Your task to perform on an android device: turn on notifications settings in the gmail app Image 0: 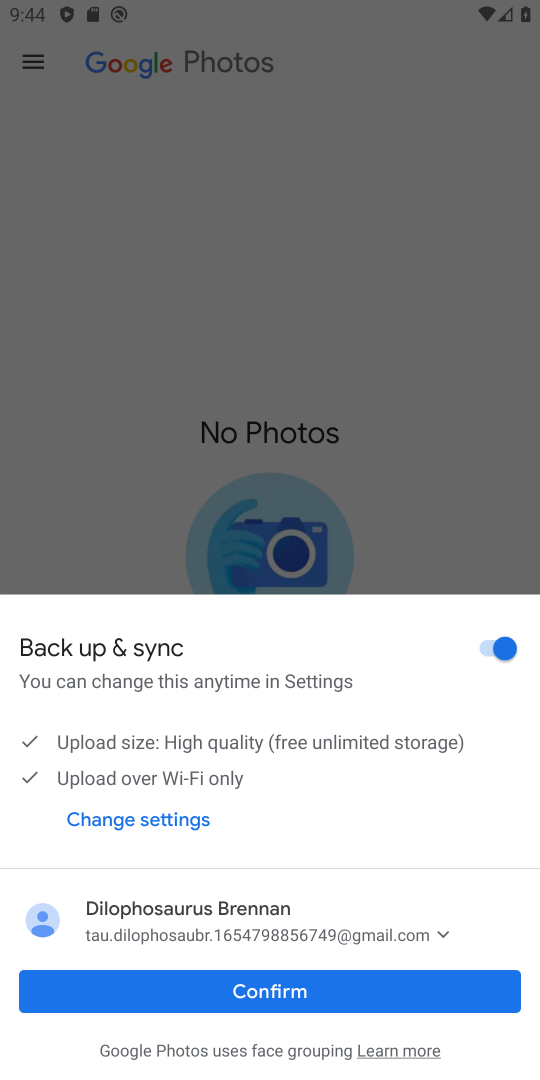
Step 0: press home button
Your task to perform on an android device: turn on notifications settings in the gmail app Image 1: 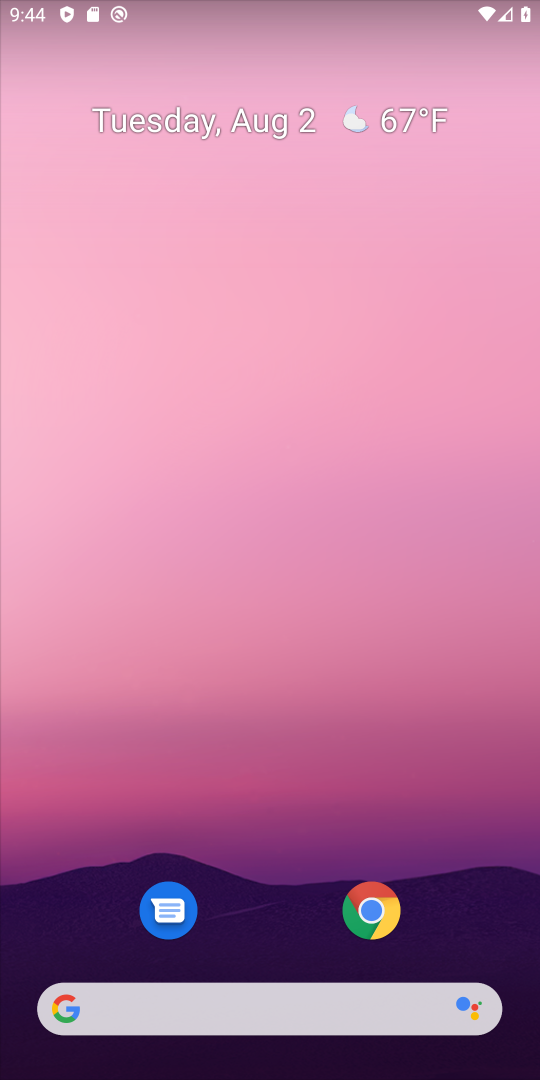
Step 1: drag from (335, 939) to (298, 342)
Your task to perform on an android device: turn on notifications settings in the gmail app Image 2: 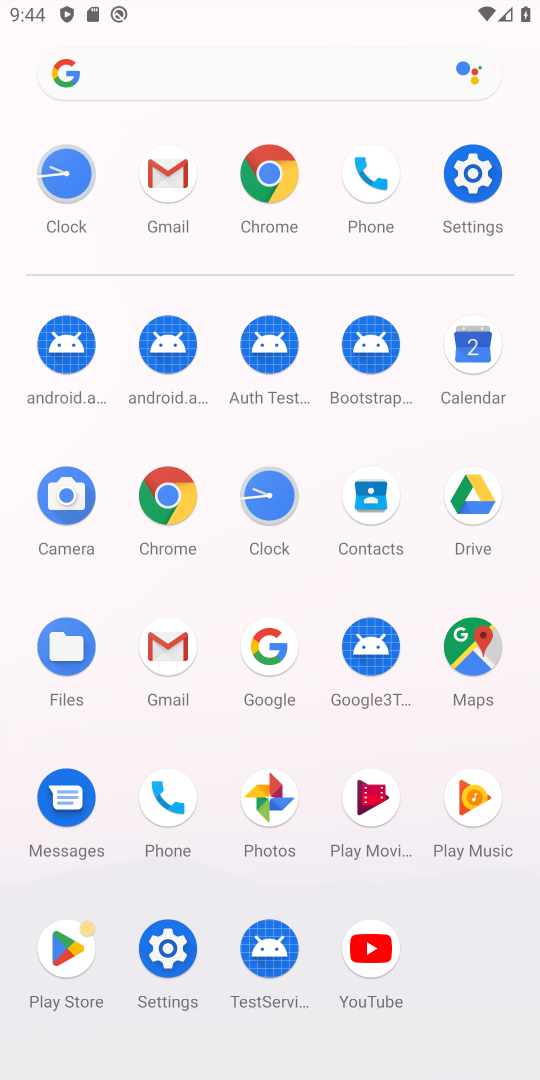
Step 2: click (188, 164)
Your task to perform on an android device: turn on notifications settings in the gmail app Image 3: 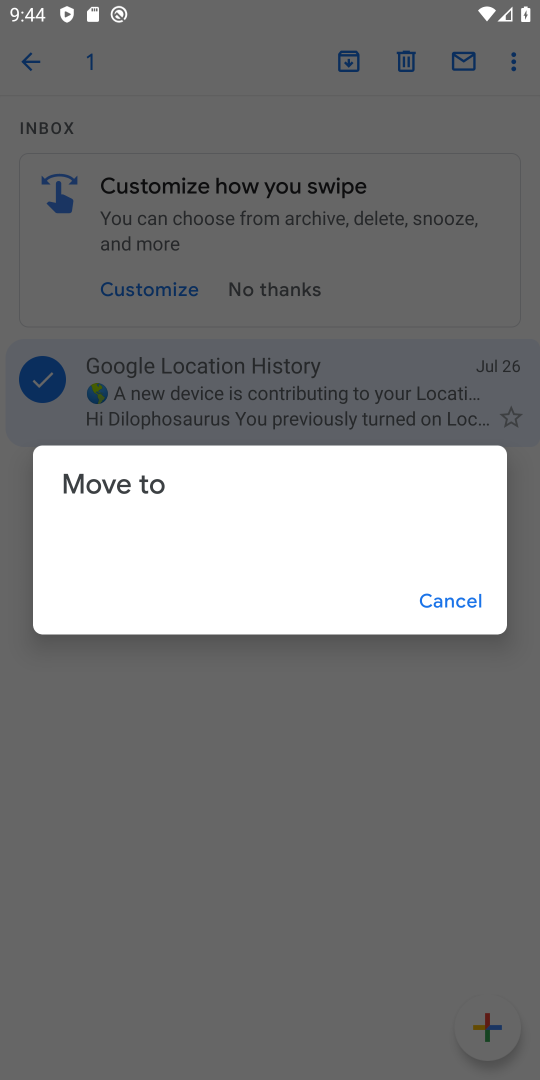
Step 3: click (456, 594)
Your task to perform on an android device: turn on notifications settings in the gmail app Image 4: 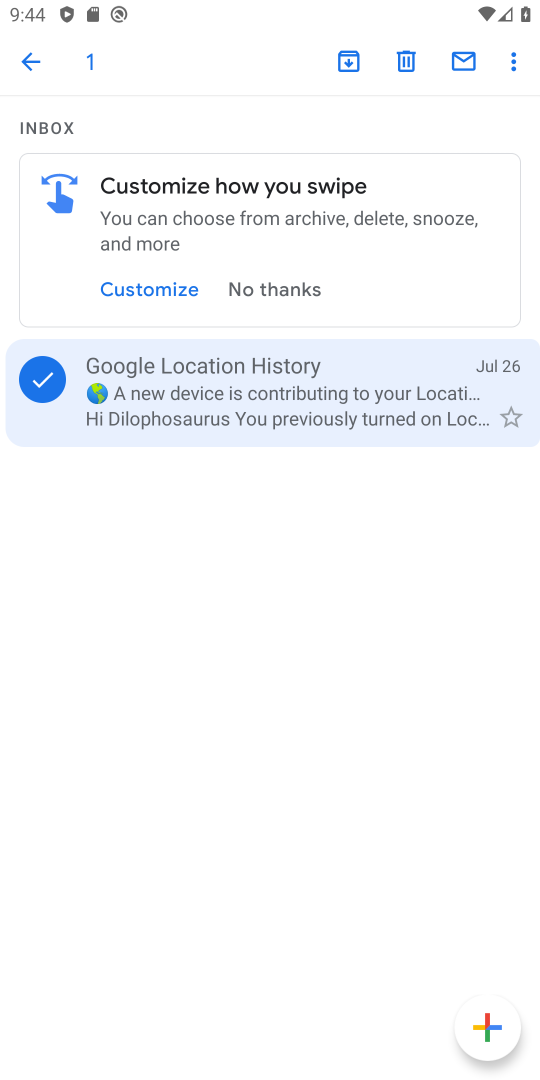
Step 4: click (21, 42)
Your task to perform on an android device: turn on notifications settings in the gmail app Image 5: 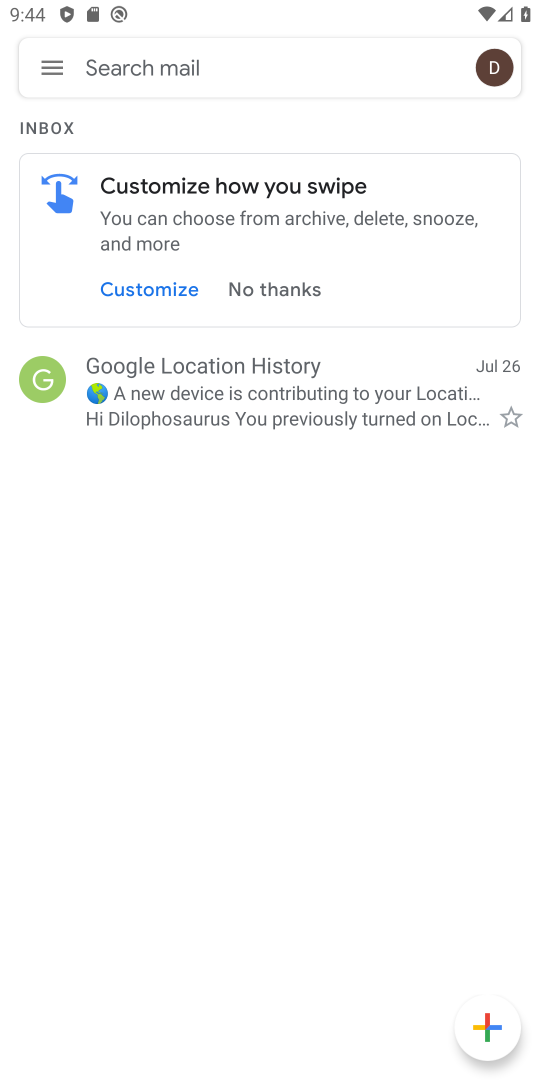
Step 5: click (62, 63)
Your task to perform on an android device: turn on notifications settings in the gmail app Image 6: 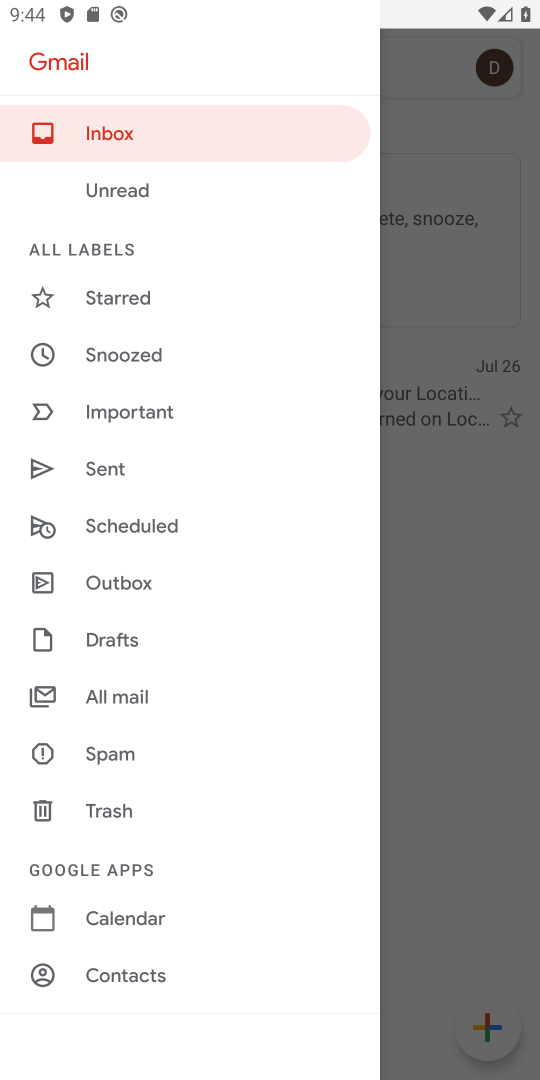
Step 6: drag from (130, 935) to (211, 397)
Your task to perform on an android device: turn on notifications settings in the gmail app Image 7: 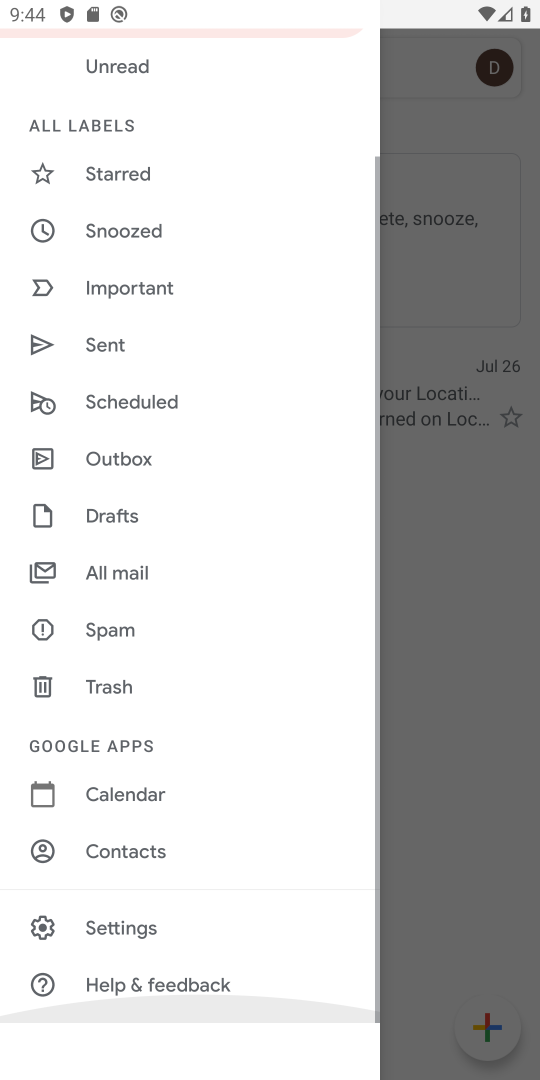
Step 7: click (116, 932)
Your task to perform on an android device: turn on notifications settings in the gmail app Image 8: 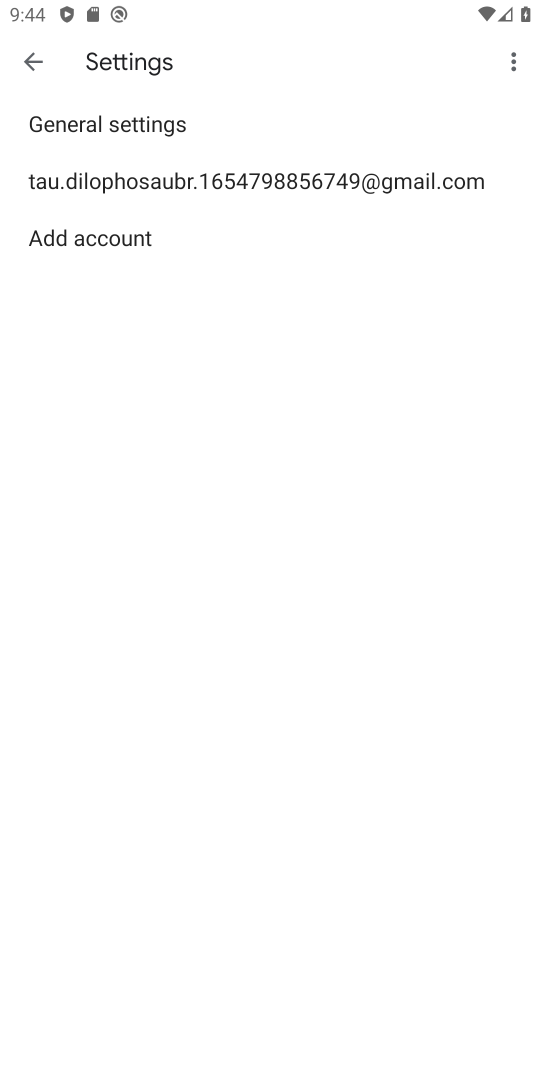
Step 8: click (135, 125)
Your task to perform on an android device: turn on notifications settings in the gmail app Image 9: 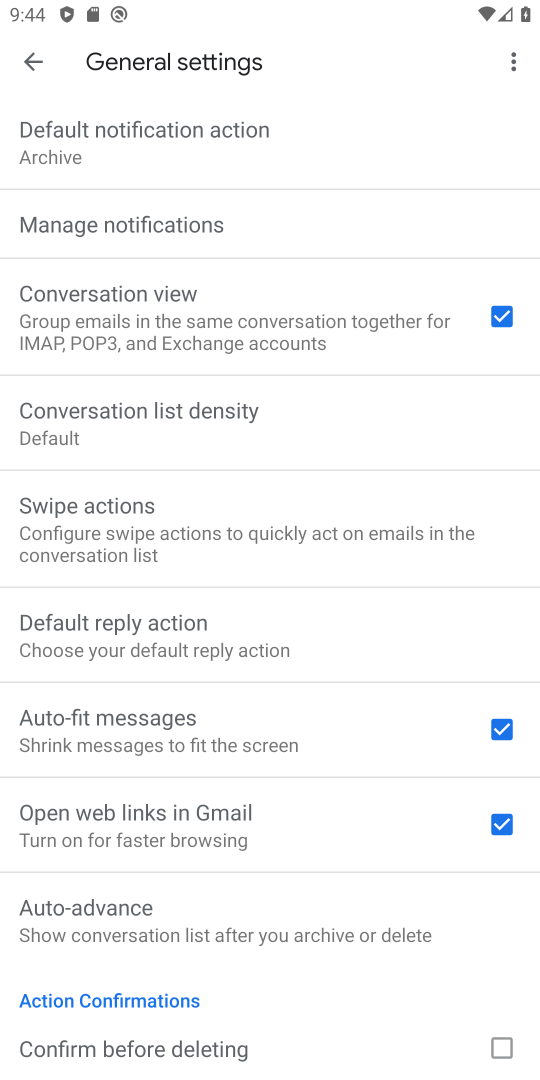
Step 9: click (22, 55)
Your task to perform on an android device: turn on notifications settings in the gmail app Image 10: 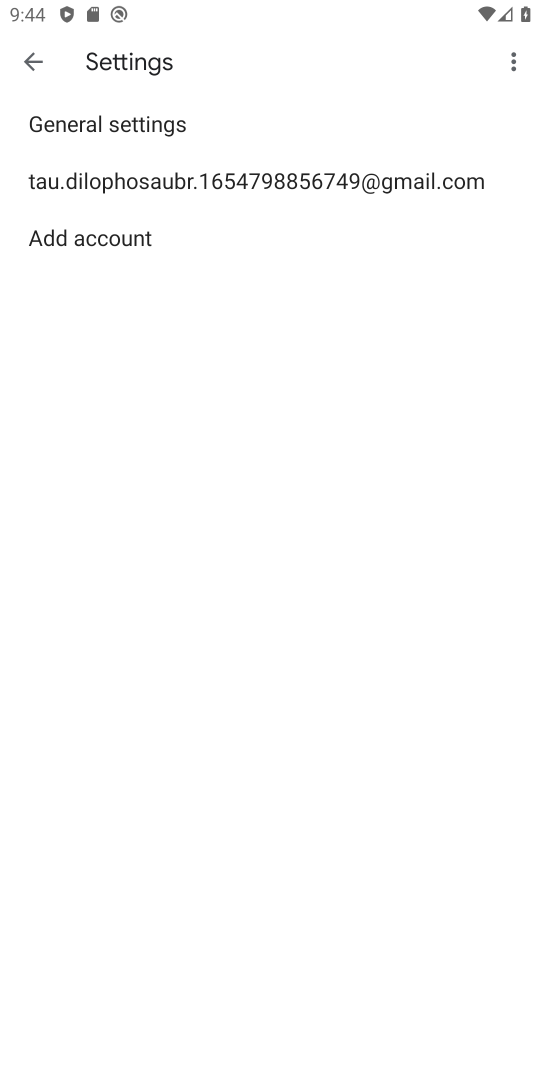
Step 10: click (121, 172)
Your task to perform on an android device: turn on notifications settings in the gmail app Image 11: 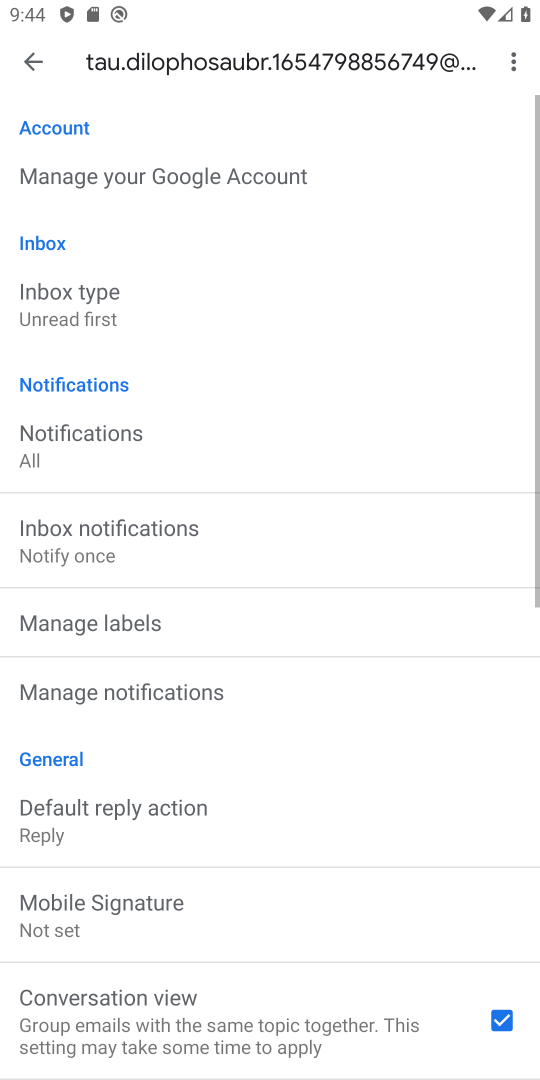
Step 11: click (117, 448)
Your task to perform on an android device: turn on notifications settings in the gmail app Image 12: 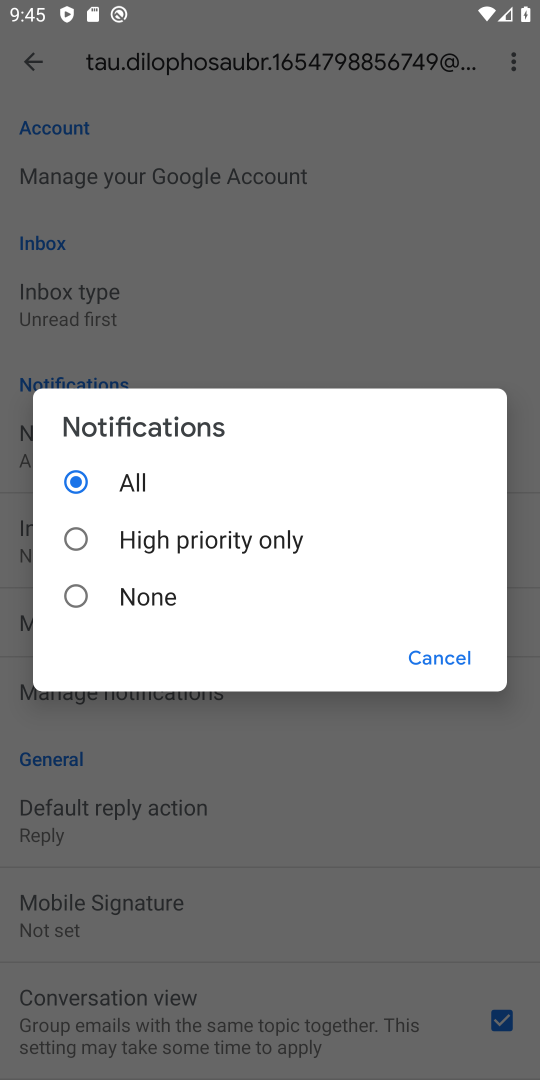
Step 12: task complete